Your task to perform on an android device: open chrome privacy settings Image 0: 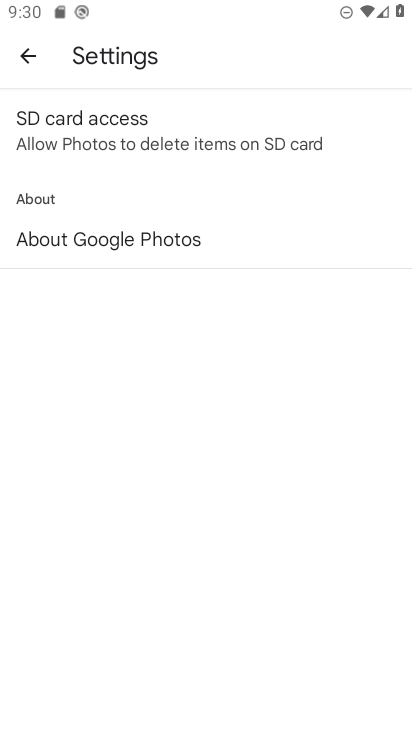
Step 0: press home button
Your task to perform on an android device: open chrome privacy settings Image 1: 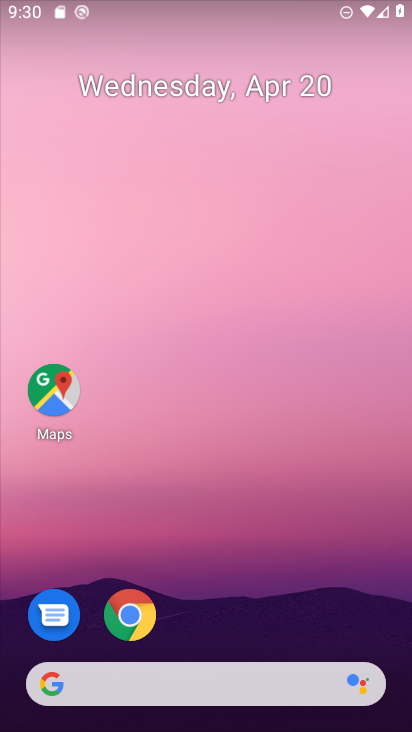
Step 1: click (126, 616)
Your task to perform on an android device: open chrome privacy settings Image 2: 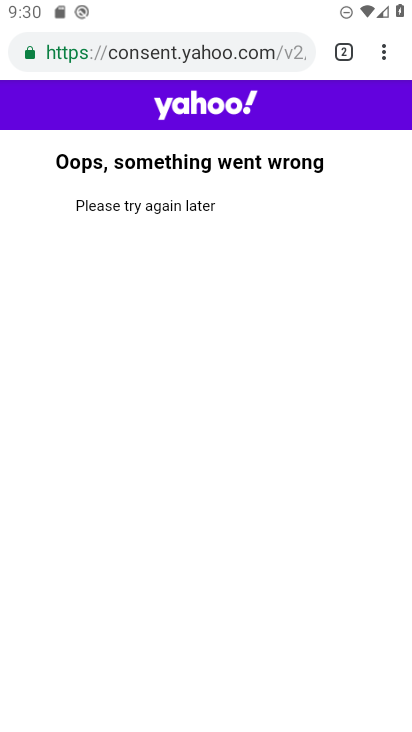
Step 2: click (384, 51)
Your task to perform on an android device: open chrome privacy settings Image 3: 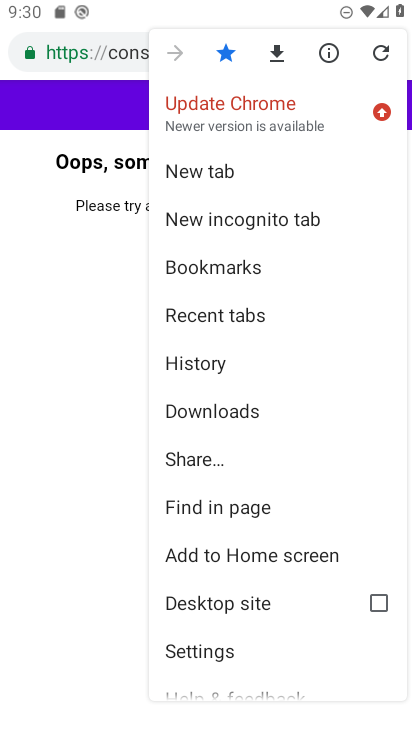
Step 3: click (200, 652)
Your task to perform on an android device: open chrome privacy settings Image 4: 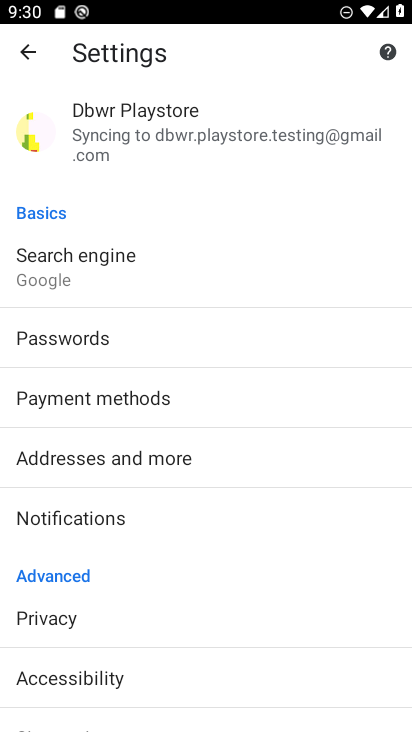
Step 4: click (65, 618)
Your task to perform on an android device: open chrome privacy settings Image 5: 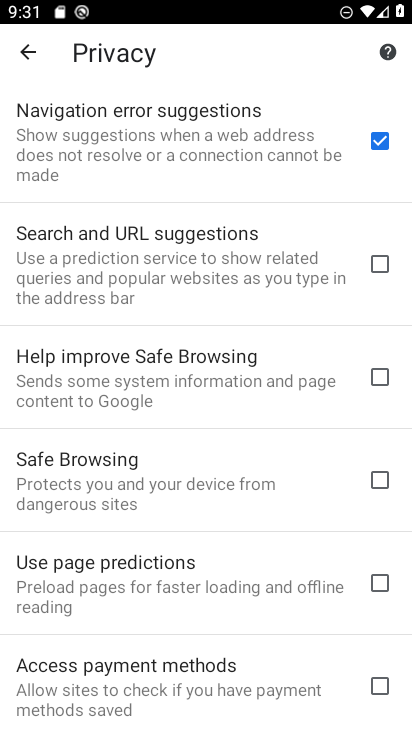
Step 5: task complete